Your task to perform on an android device: Do I have any events tomorrow? Image 0: 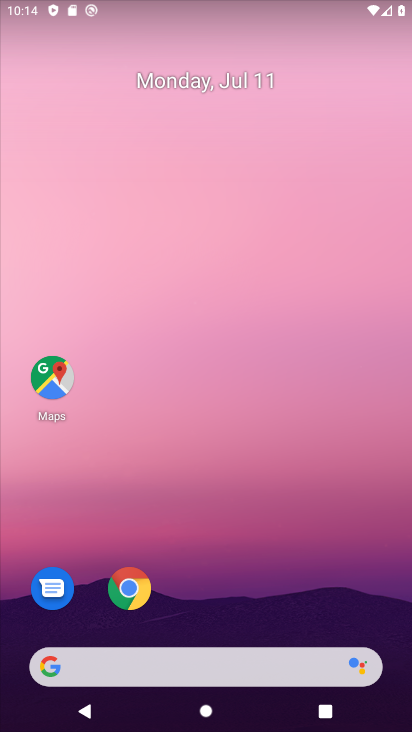
Step 0: drag from (224, 511) to (157, 111)
Your task to perform on an android device: Do I have any events tomorrow? Image 1: 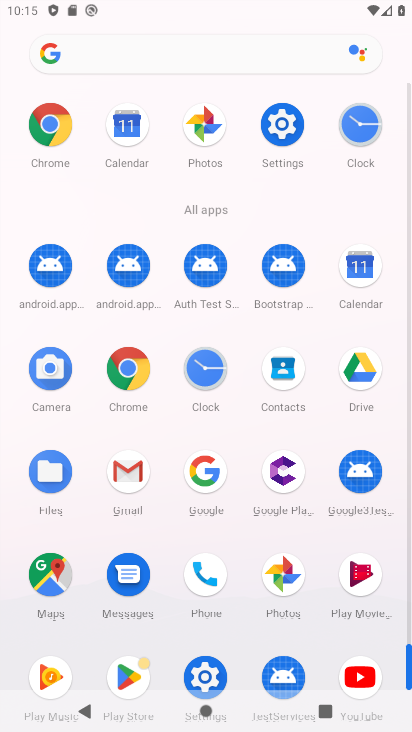
Step 1: click (120, 127)
Your task to perform on an android device: Do I have any events tomorrow? Image 2: 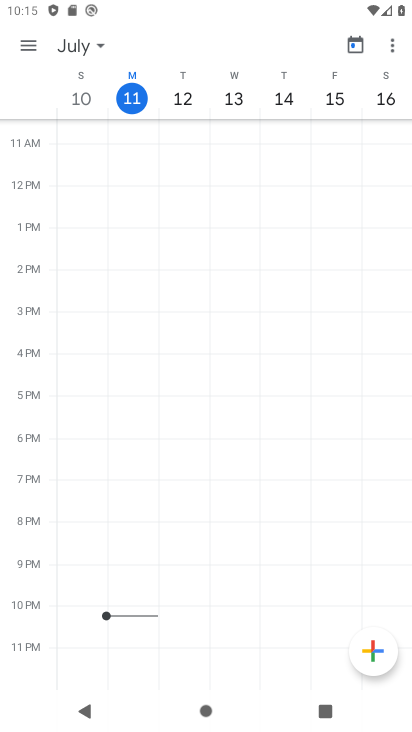
Step 2: click (180, 96)
Your task to perform on an android device: Do I have any events tomorrow? Image 3: 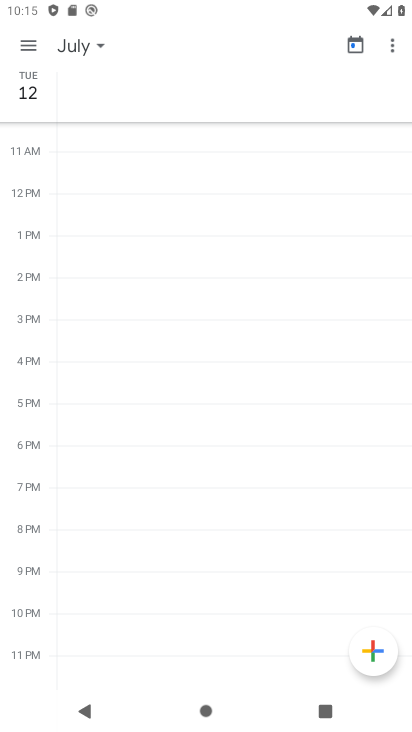
Step 3: task complete